Your task to perform on an android device: Go to privacy settings Image 0: 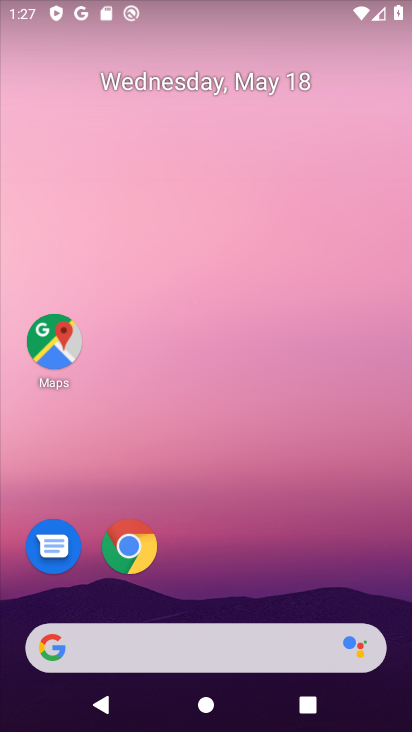
Step 0: drag from (276, 602) to (196, 11)
Your task to perform on an android device: Go to privacy settings Image 1: 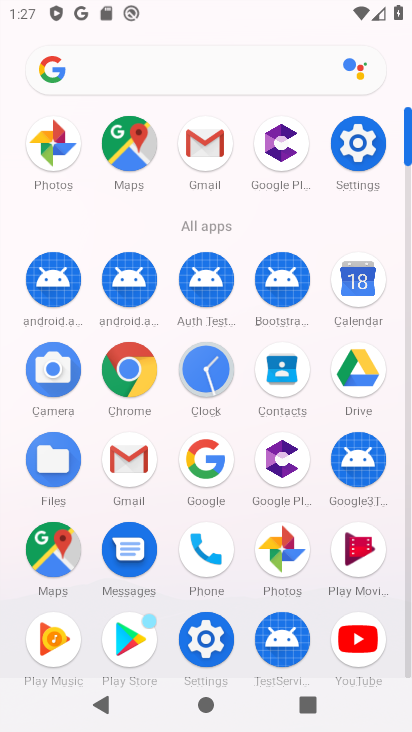
Step 1: click (363, 135)
Your task to perform on an android device: Go to privacy settings Image 2: 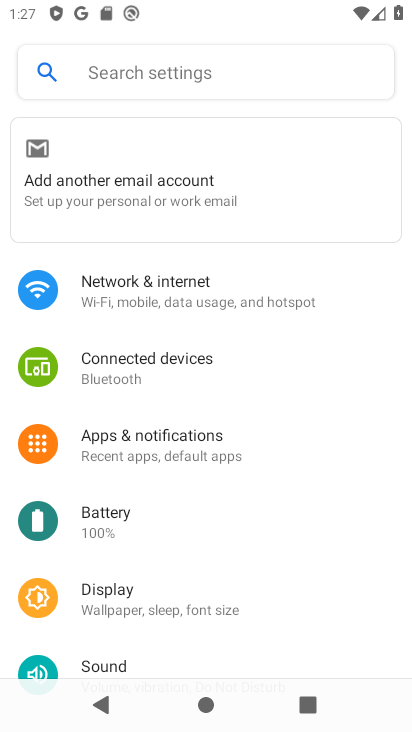
Step 2: drag from (345, 649) to (297, 290)
Your task to perform on an android device: Go to privacy settings Image 3: 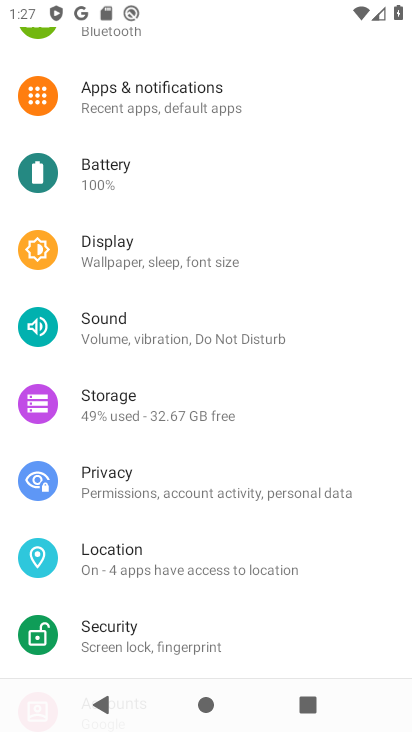
Step 3: click (255, 497)
Your task to perform on an android device: Go to privacy settings Image 4: 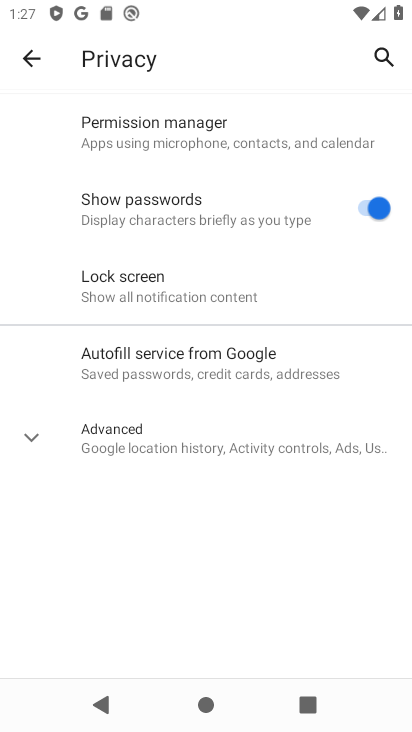
Step 4: task complete